Your task to perform on an android device: Turn off the flashlight Image 0: 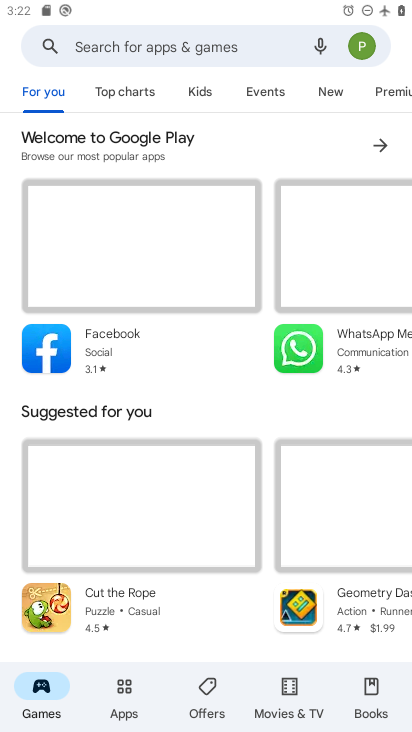
Step 0: press home button
Your task to perform on an android device: Turn off the flashlight Image 1: 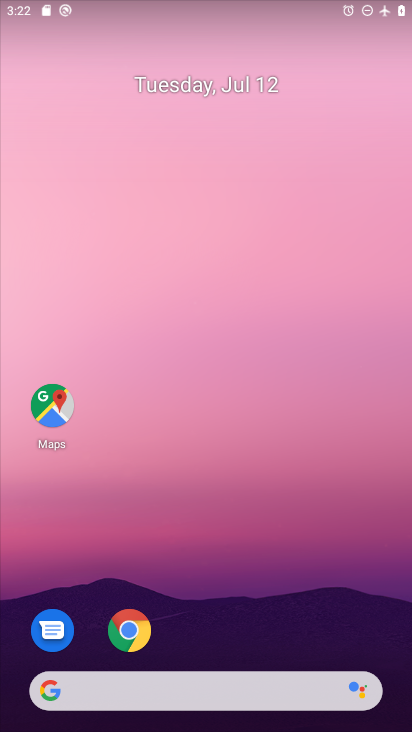
Step 1: drag from (221, 644) to (223, 208)
Your task to perform on an android device: Turn off the flashlight Image 2: 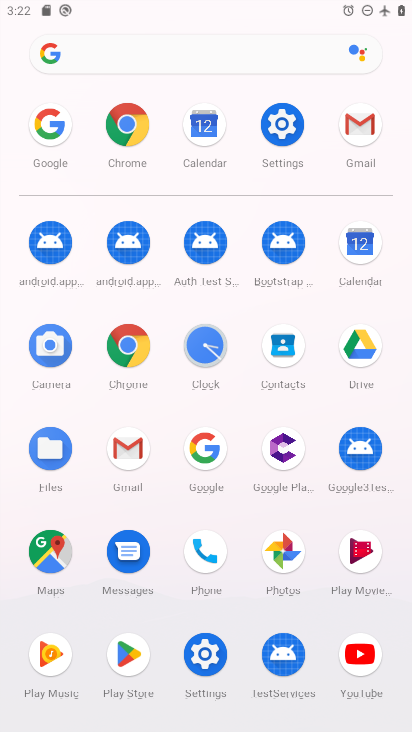
Step 2: click (264, 135)
Your task to perform on an android device: Turn off the flashlight Image 3: 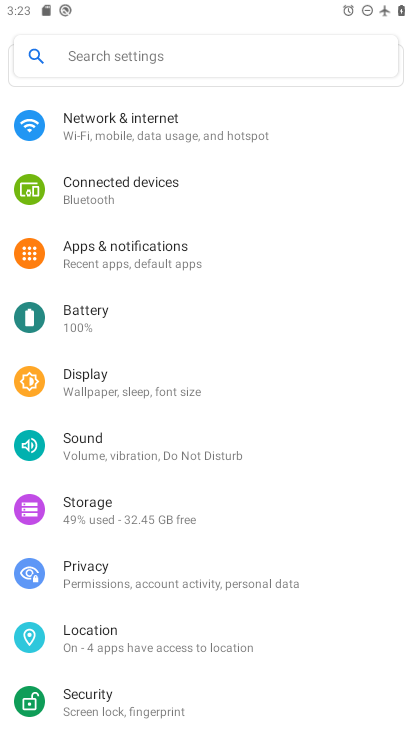
Step 3: task complete